Your task to perform on an android device: open the mobile data screen to see how much data has been used Image 0: 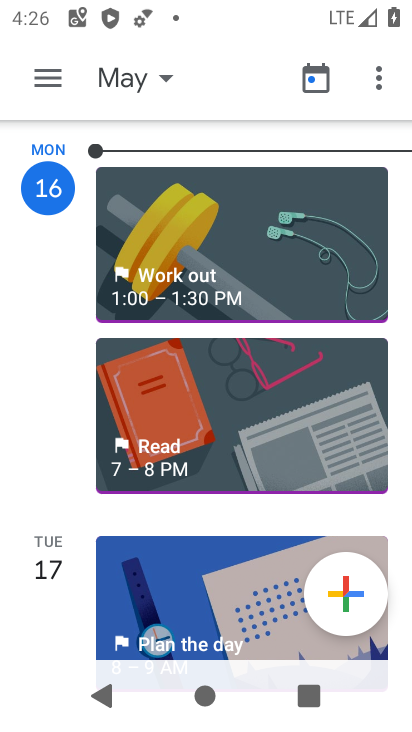
Step 0: press home button
Your task to perform on an android device: open the mobile data screen to see how much data has been used Image 1: 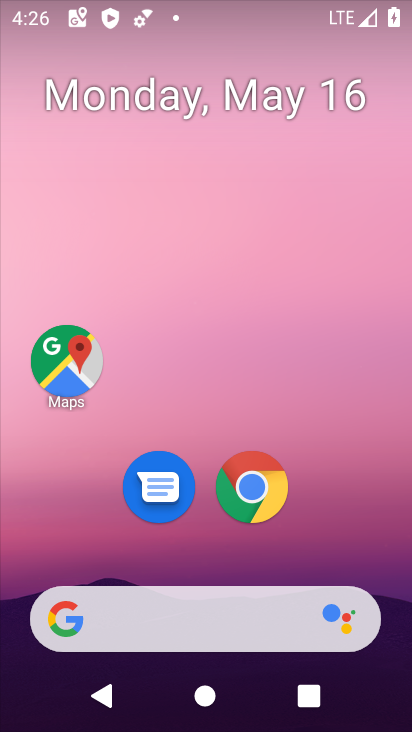
Step 1: drag from (392, 613) to (336, 102)
Your task to perform on an android device: open the mobile data screen to see how much data has been used Image 2: 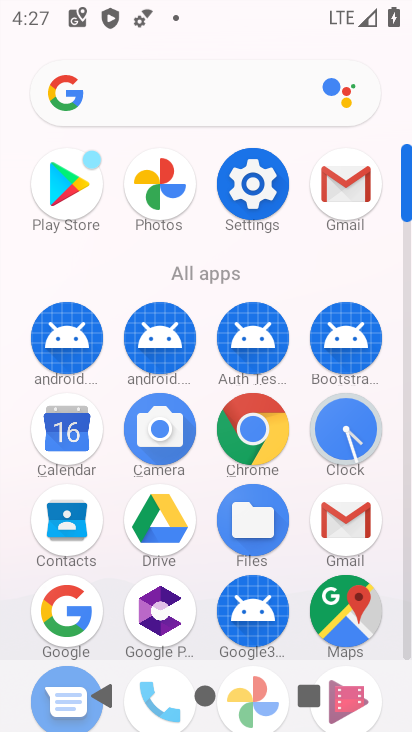
Step 2: click (407, 639)
Your task to perform on an android device: open the mobile data screen to see how much data has been used Image 3: 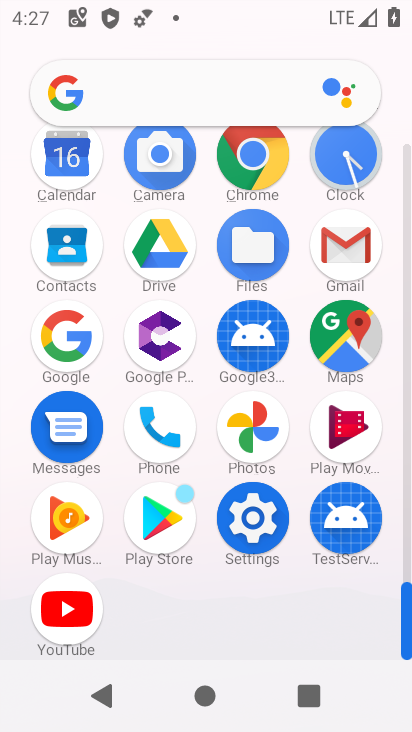
Step 3: click (255, 513)
Your task to perform on an android device: open the mobile data screen to see how much data has been used Image 4: 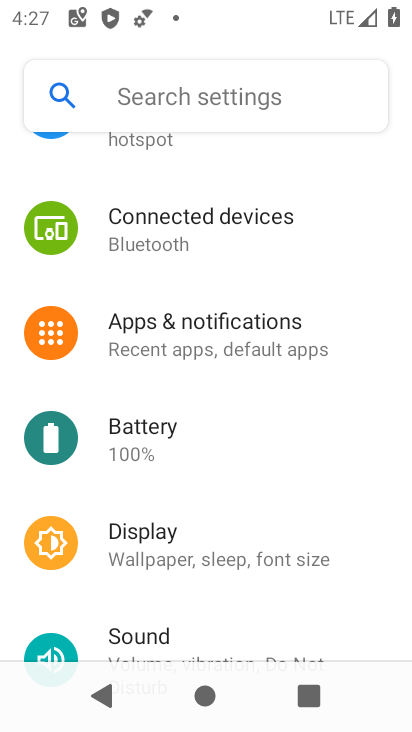
Step 4: drag from (333, 193) to (333, 413)
Your task to perform on an android device: open the mobile data screen to see how much data has been used Image 5: 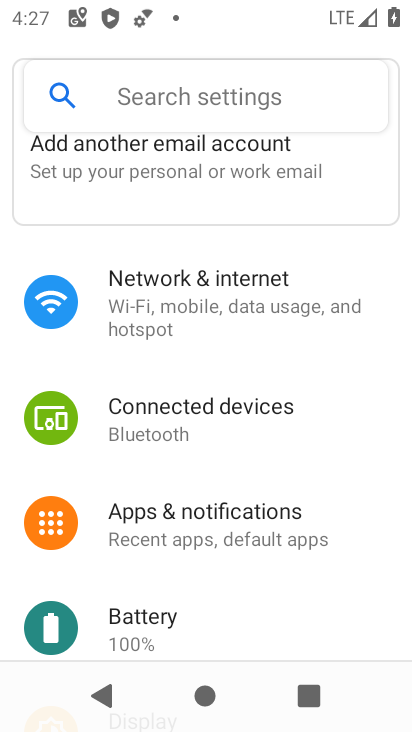
Step 5: click (133, 289)
Your task to perform on an android device: open the mobile data screen to see how much data has been used Image 6: 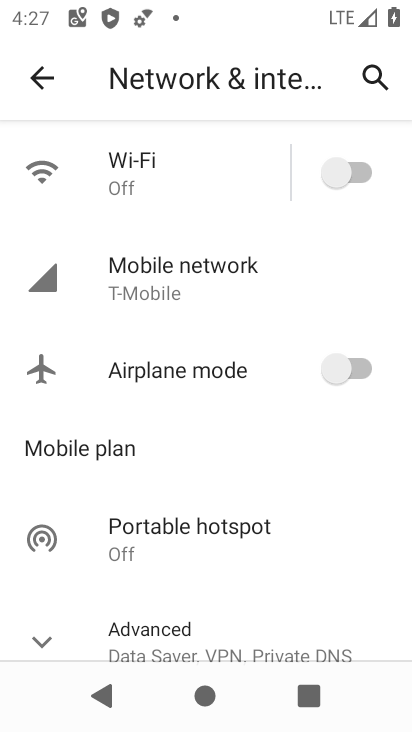
Step 6: click (204, 264)
Your task to perform on an android device: open the mobile data screen to see how much data has been used Image 7: 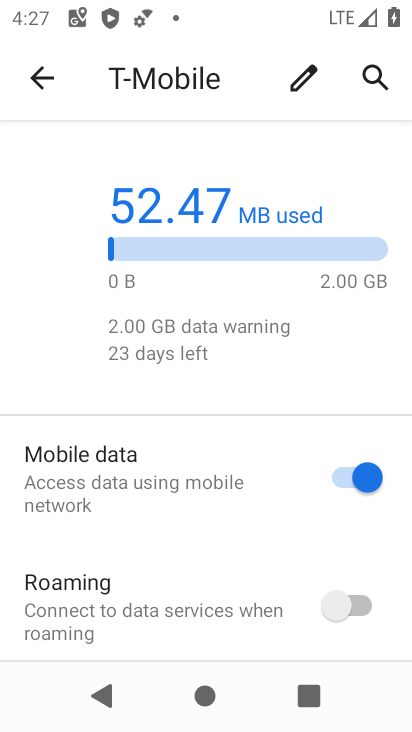
Step 7: task complete